Your task to perform on an android device: stop showing notifications on the lock screen Image 0: 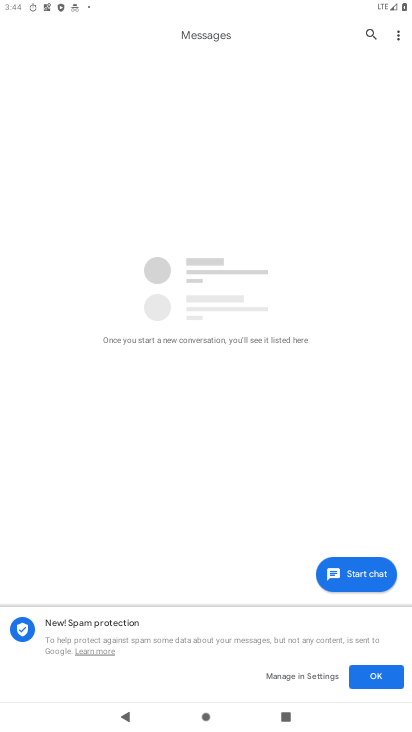
Step 0: press home button
Your task to perform on an android device: stop showing notifications on the lock screen Image 1: 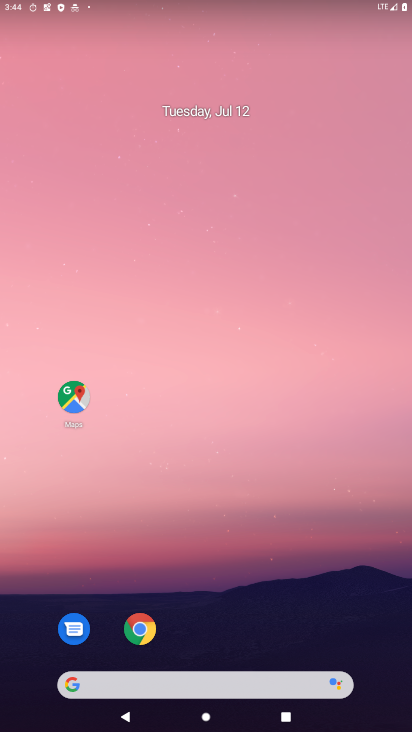
Step 1: drag from (238, 611) to (255, 189)
Your task to perform on an android device: stop showing notifications on the lock screen Image 2: 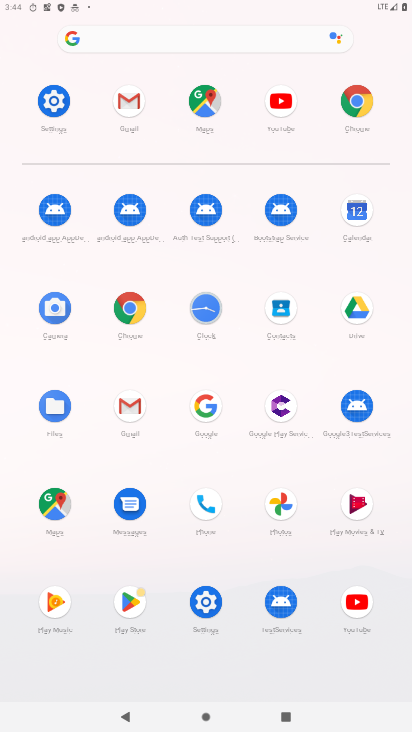
Step 2: click (207, 594)
Your task to perform on an android device: stop showing notifications on the lock screen Image 3: 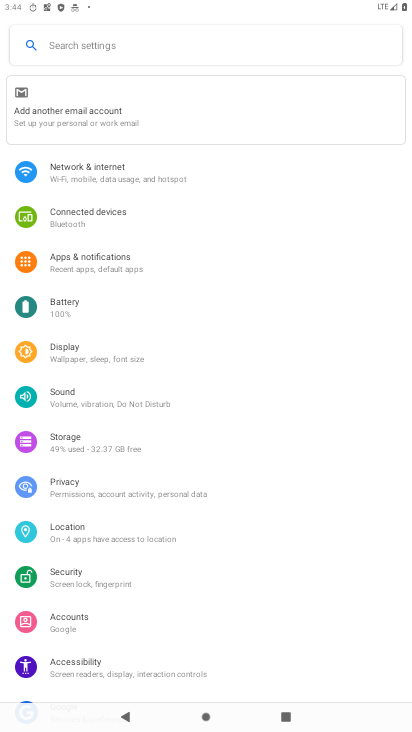
Step 3: click (93, 260)
Your task to perform on an android device: stop showing notifications on the lock screen Image 4: 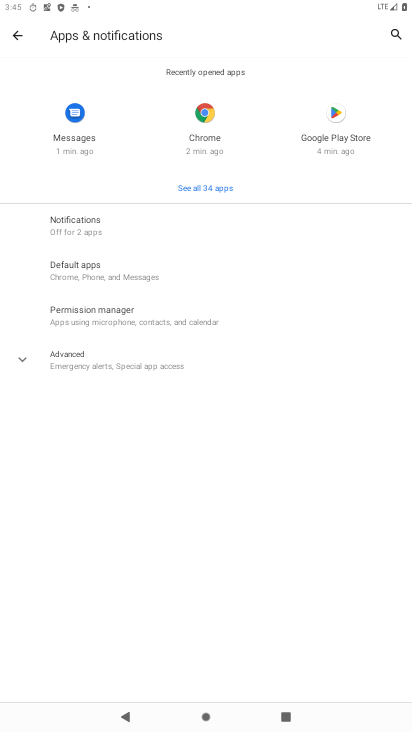
Step 4: click (88, 364)
Your task to perform on an android device: stop showing notifications on the lock screen Image 5: 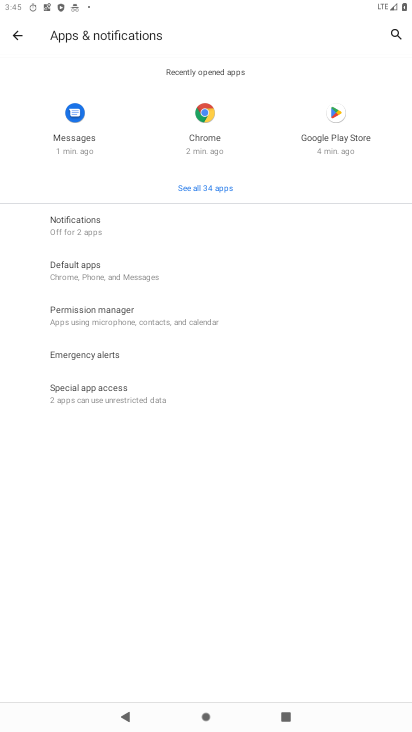
Step 5: click (77, 221)
Your task to perform on an android device: stop showing notifications on the lock screen Image 6: 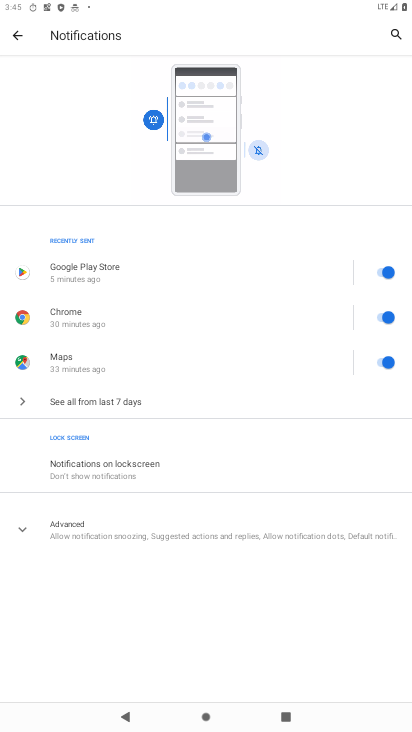
Step 6: click (144, 470)
Your task to perform on an android device: stop showing notifications on the lock screen Image 7: 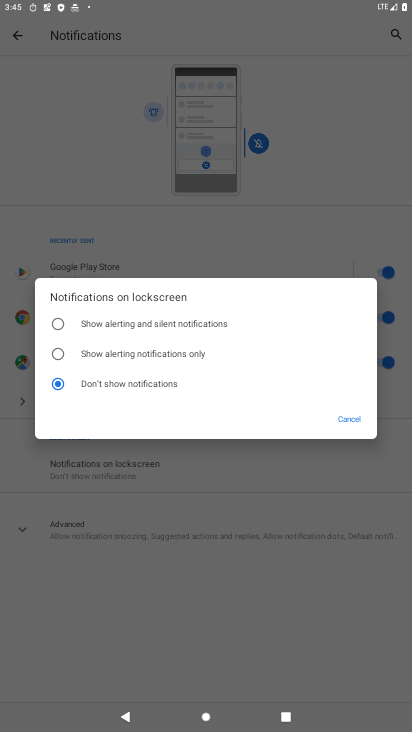
Step 7: click (151, 381)
Your task to perform on an android device: stop showing notifications on the lock screen Image 8: 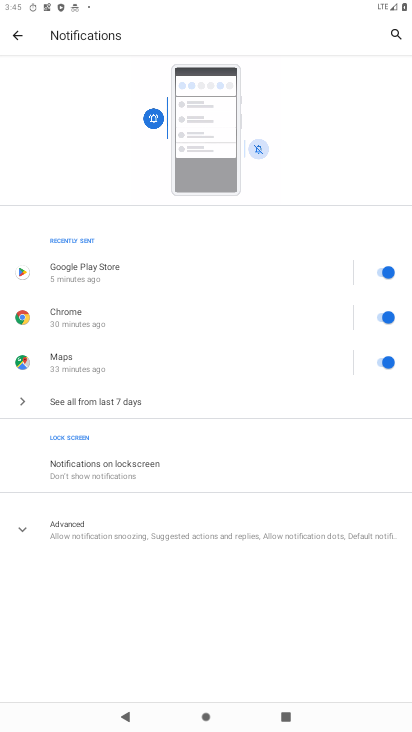
Step 8: task complete